Your task to perform on an android device: When is my next meeting? Image 0: 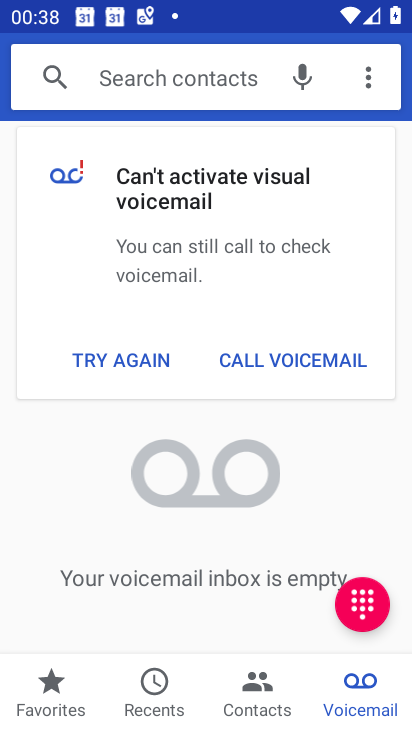
Step 0: press home button
Your task to perform on an android device: When is my next meeting? Image 1: 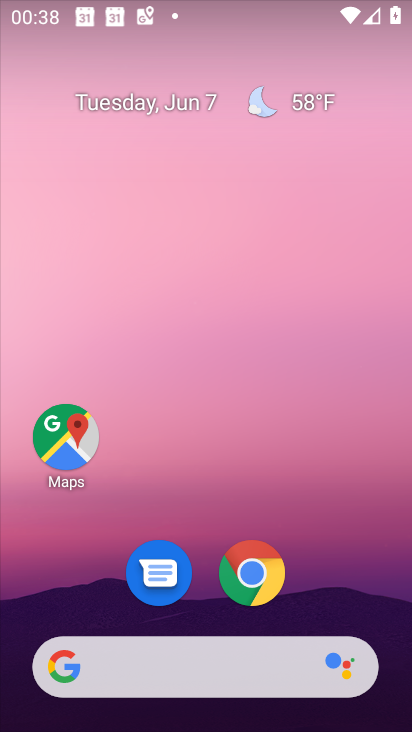
Step 1: drag from (318, 597) to (301, 108)
Your task to perform on an android device: When is my next meeting? Image 2: 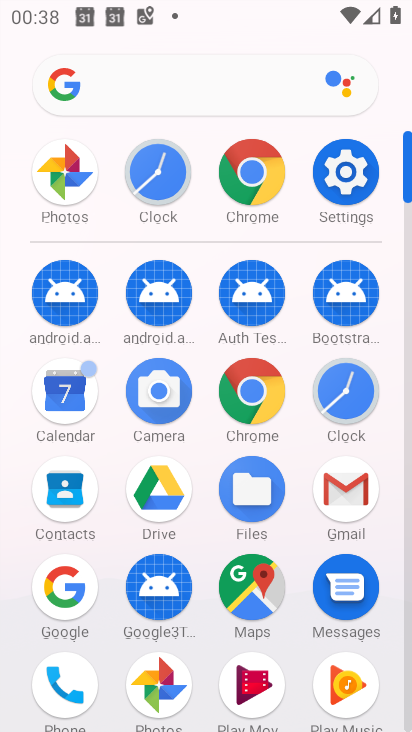
Step 2: click (70, 405)
Your task to perform on an android device: When is my next meeting? Image 3: 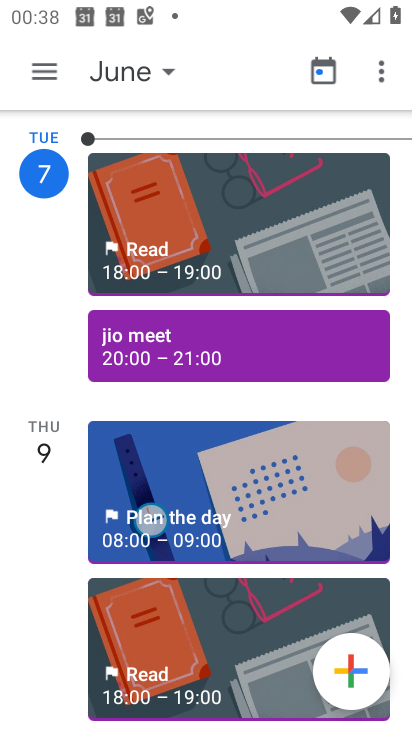
Step 3: task complete